Your task to perform on an android device: Open CNN.com Image 0: 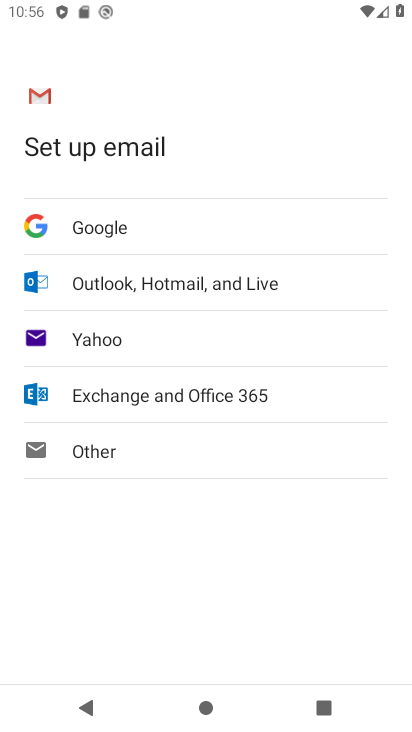
Step 0: press home button
Your task to perform on an android device: Open CNN.com Image 1: 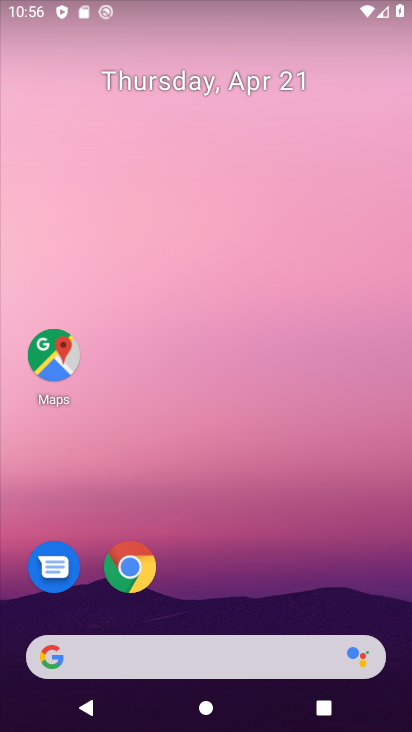
Step 1: click (242, 659)
Your task to perform on an android device: Open CNN.com Image 2: 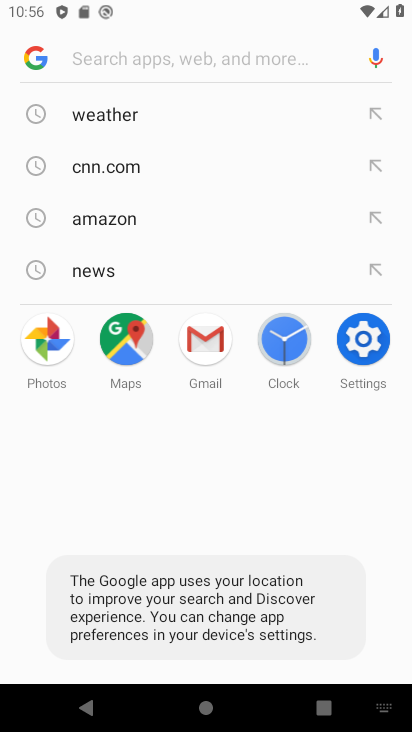
Step 2: click (137, 183)
Your task to perform on an android device: Open CNN.com Image 3: 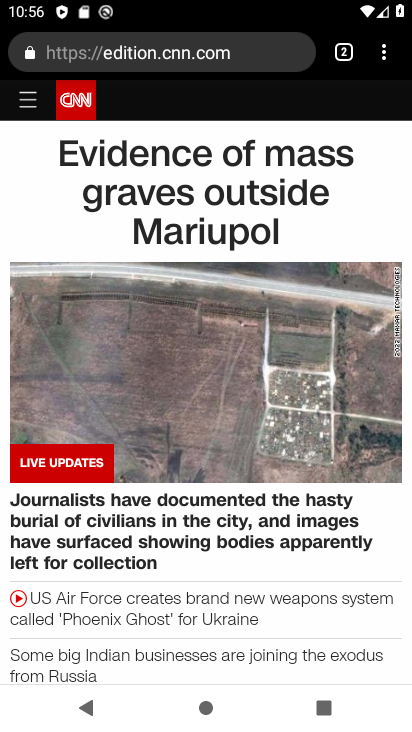
Step 3: task complete